Your task to perform on an android device: When is my next appointment? Image 0: 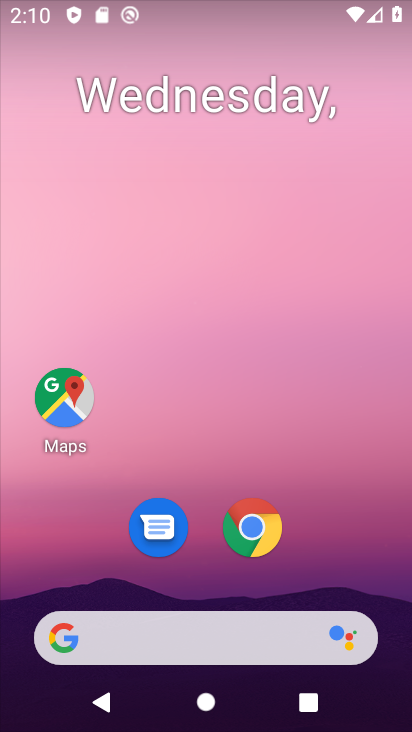
Step 0: drag from (323, 567) to (231, 227)
Your task to perform on an android device: When is my next appointment? Image 1: 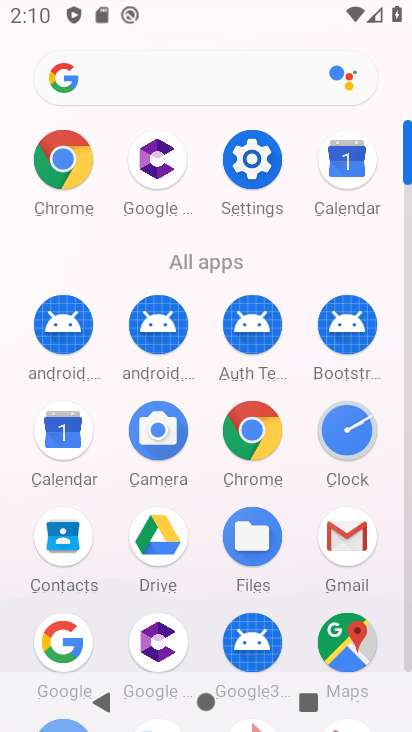
Step 1: click (347, 160)
Your task to perform on an android device: When is my next appointment? Image 2: 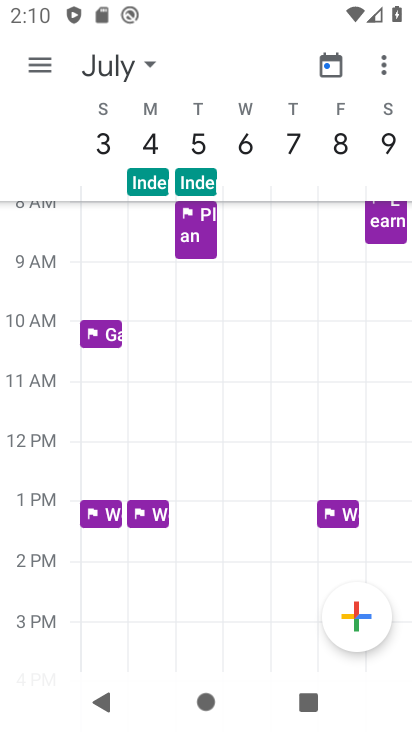
Step 2: click (335, 70)
Your task to perform on an android device: When is my next appointment? Image 3: 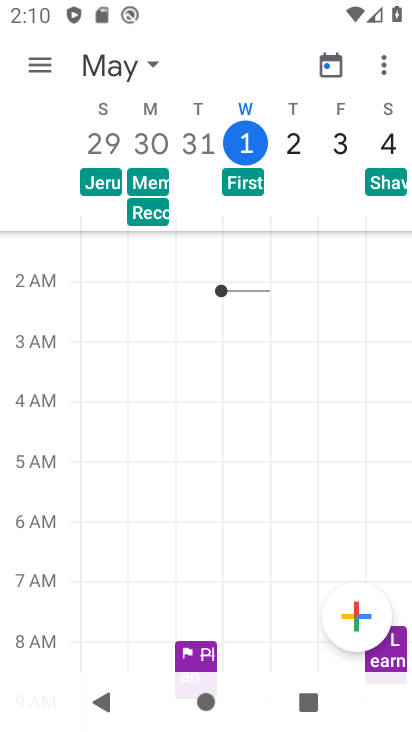
Step 3: click (141, 61)
Your task to perform on an android device: When is my next appointment? Image 4: 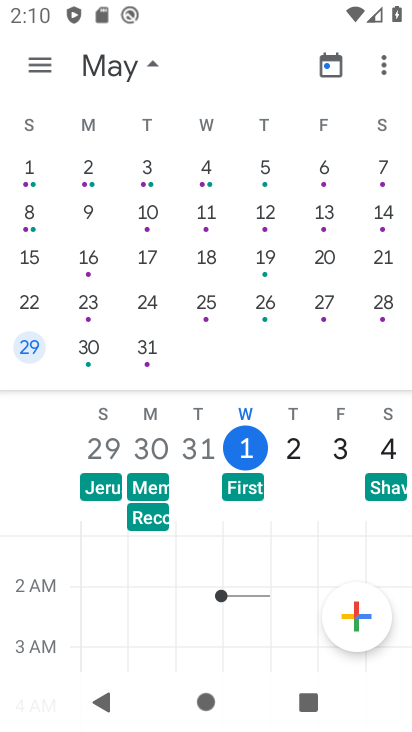
Step 4: drag from (363, 228) to (60, 281)
Your task to perform on an android device: When is my next appointment? Image 5: 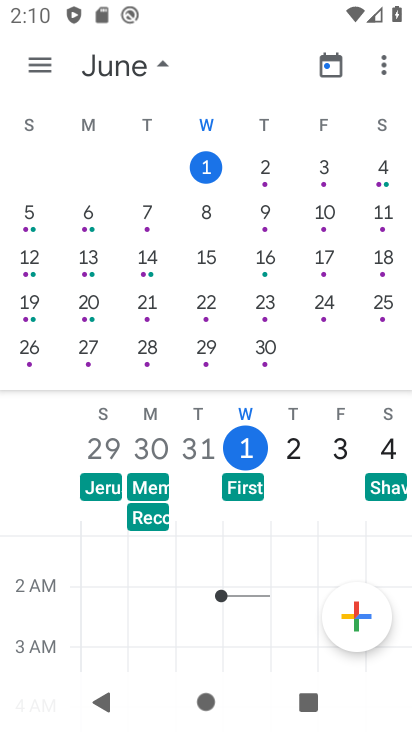
Step 5: click (275, 172)
Your task to perform on an android device: When is my next appointment? Image 6: 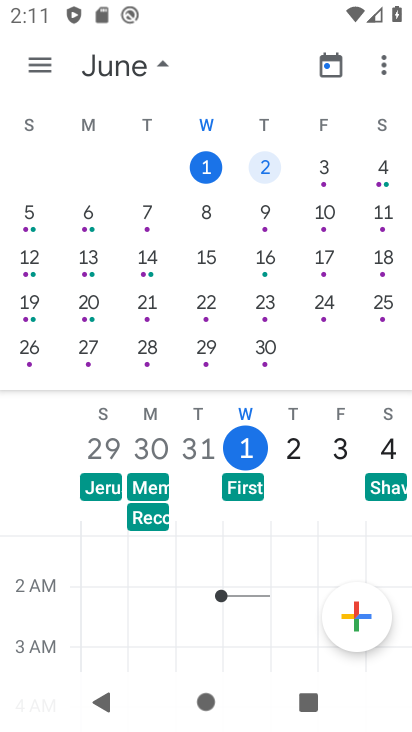
Step 6: click (53, 70)
Your task to perform on an android device: When is my next appointment? Image 7: 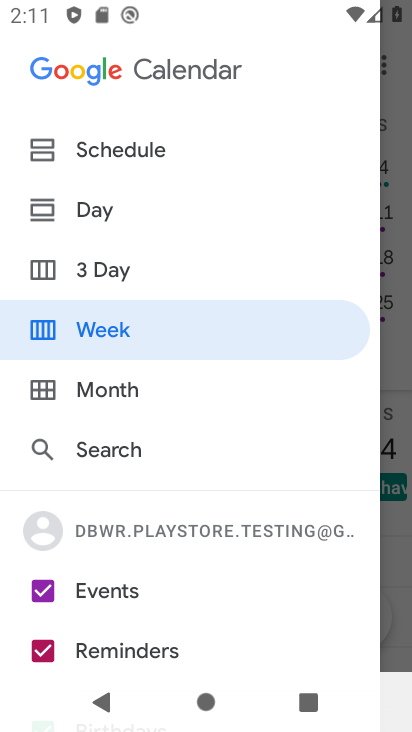
Step 7: click (111, 156)
Your task to perform on an android device: When is my next appointment? Image 8: 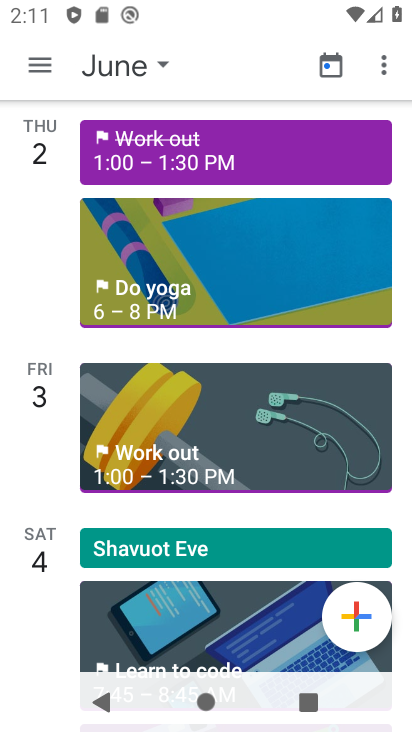
Step 8: task complete